Your task to perform on an android device: turn vacation reply on in the gmail app Image 0: 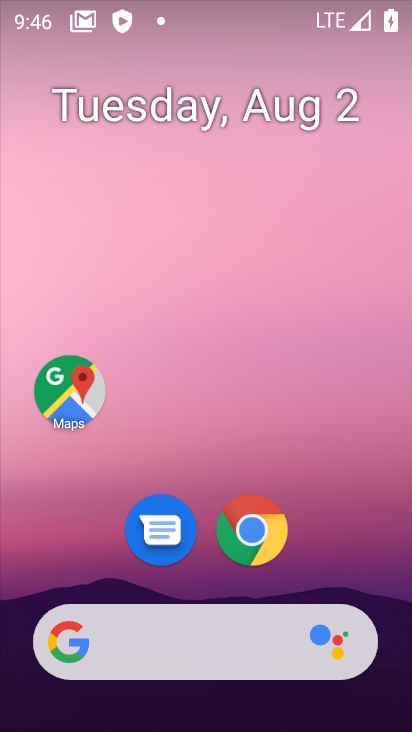
Step 0: drag from (319, 517) to (316, 34)
Your task to perform on an android device: turn vacation reply on in the gmail app Image 1: 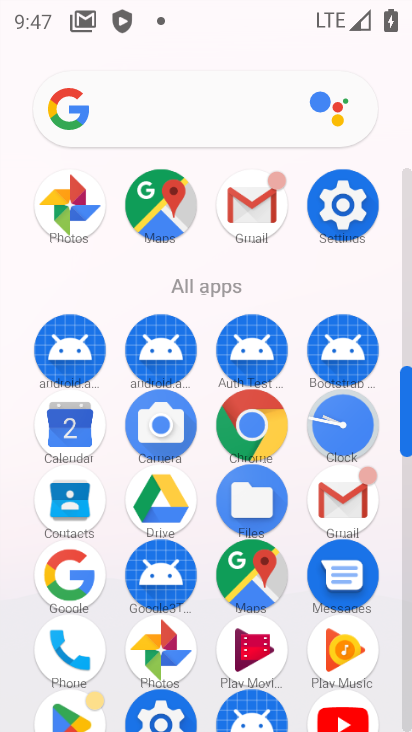
Step 1: click (342, 491)
Your task to perform on an android device: turn vacation reply on in the gmail app Image 2: 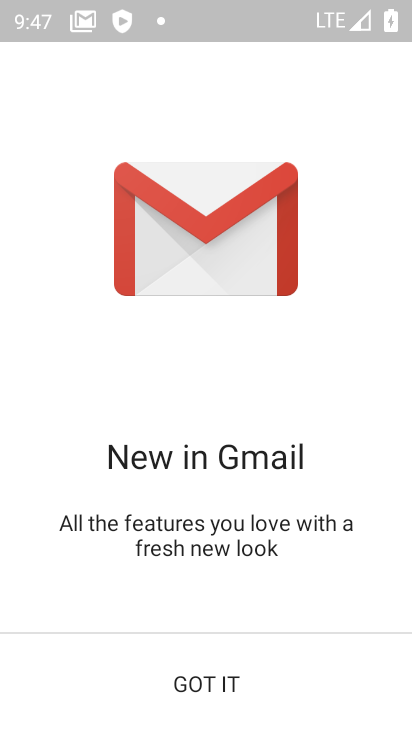
Step 2: click (224, 668)
Your task to perform on an android device: turn vacation reply on in the gmail app Image 3: 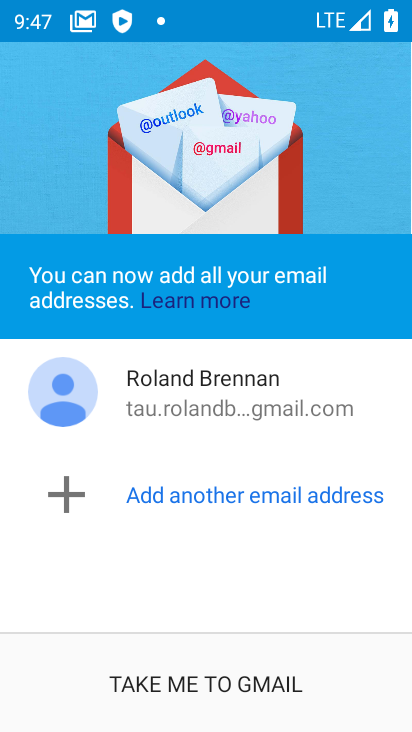
Step 3: click (226, 668)
Your task to perform on an android device: turn vacation reply on in the gmail app Image 4: 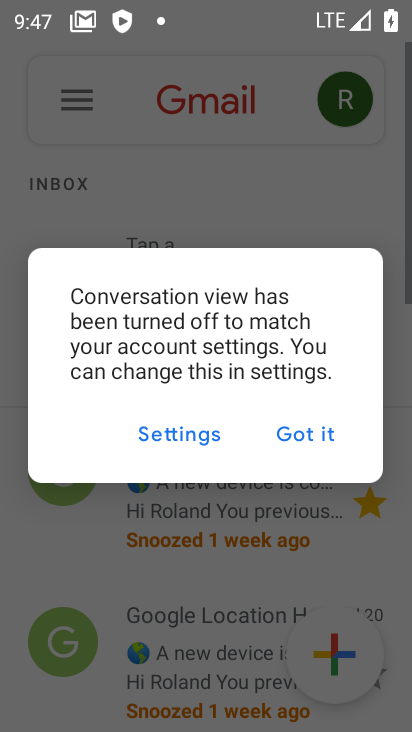
Step 4: click (313, 422)
Your task to perform on an android device: turn vacation reply on in the gmail app Image 5: 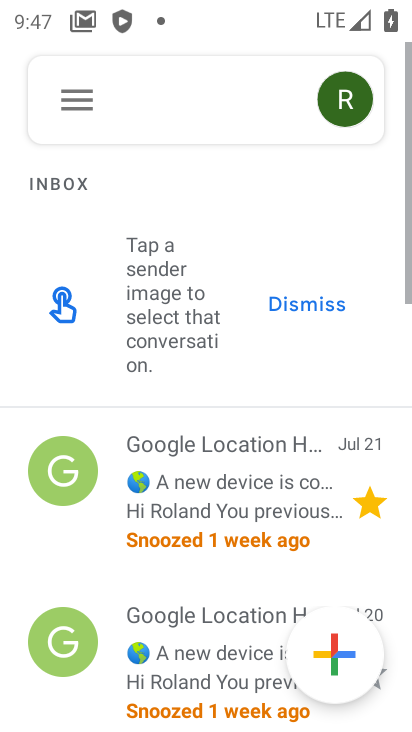
Step 5: click (74, 112)
Your task to perform on an android device: turn vacation reply on in the gmail app Image 6: 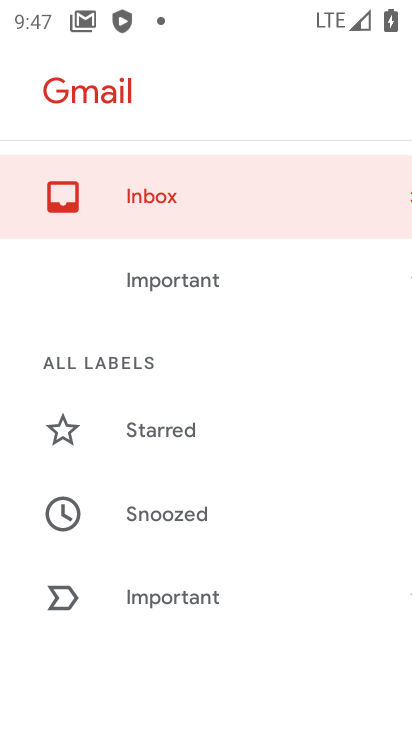
Step 6: drag from (240, 608) to (226, 88)
Your task to perform on an android device: turn vacation reply on in the gmail app Image 7: 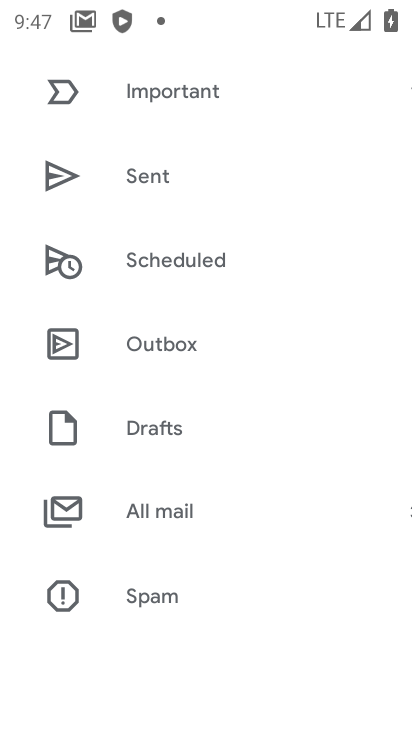
Step 7: drag from (252, 517) to (260, 172)
Your task to perform on an android device: turn vacation reply on in the gmail app Image 8: 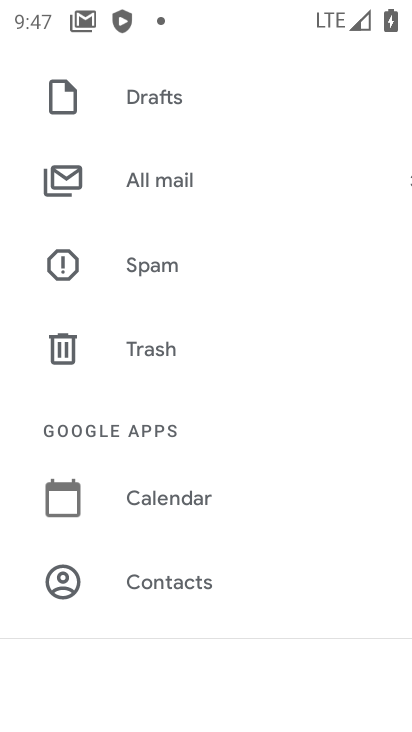
Step 8: drag from (213, 590) to (215, 111)
Your task to perform on an android device: turn vacation reply on in the gmail app Image 9: 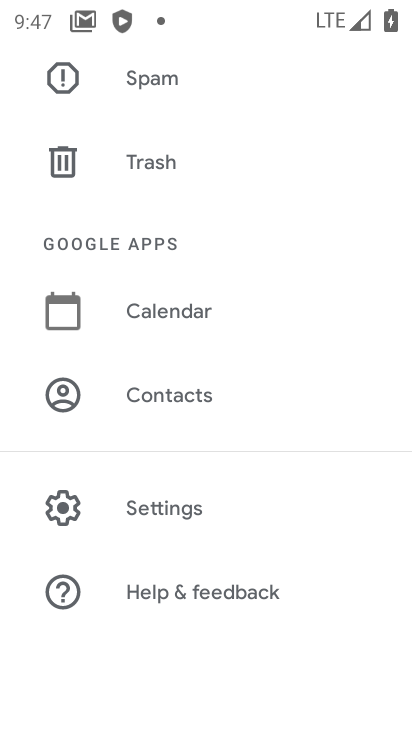
Step 9: click (183, 507)
Your task to perform on an android device: turn vacation reply on in the gmail app Image 10: 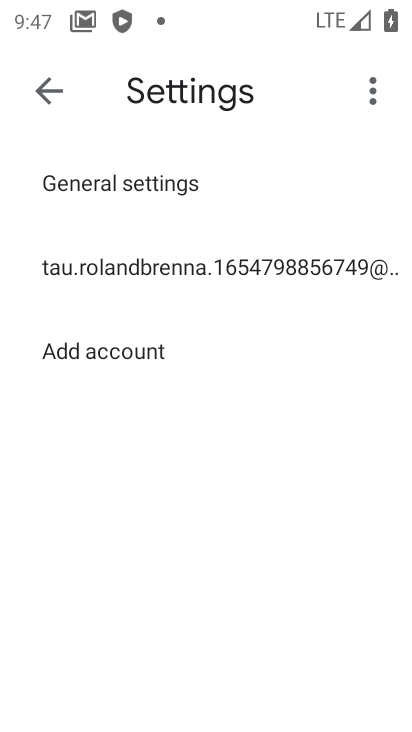
Step 10: click (198, 268)
Your task to perform on an android device: turn vacation reply on in the gmail app Image 11: 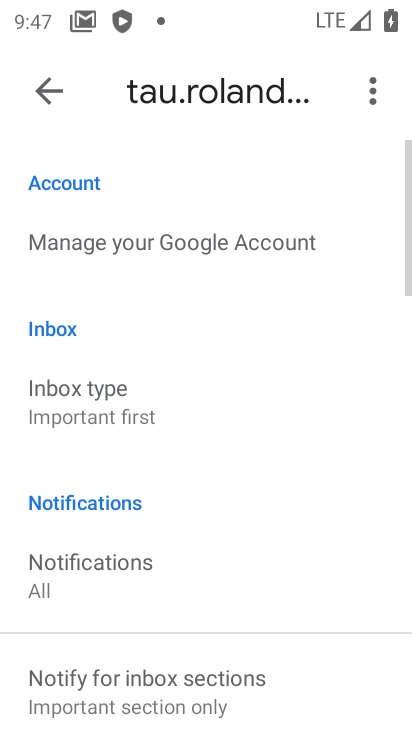
Step 11: drag from (260, 620) to (238, 185)
Your task to perform on an android device: turn vacation reply on in the gmail app Image 12: 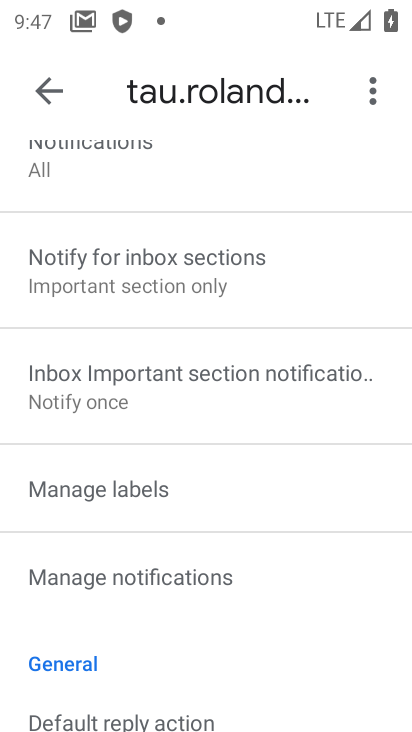
Step 12: drag from (268, 683) to (256, 254)
Your task to perform on an android device: turn vacation reply on in the gmail app Image 13: 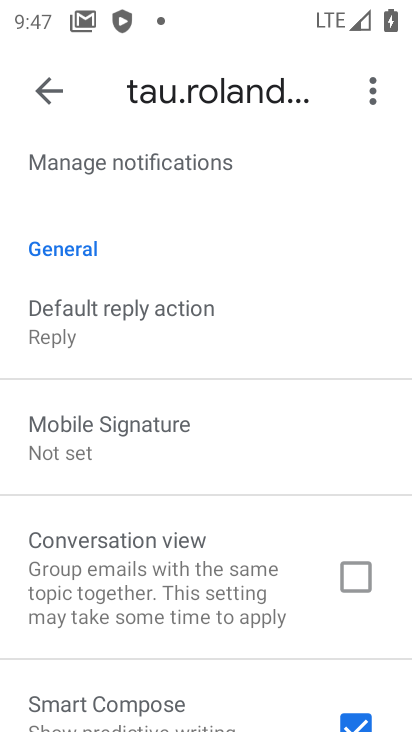
Step 13: drag from (248, 667) to (254, 259)
Your task to perform on an android device: turn vacation reply on in the gmail app Image 14: 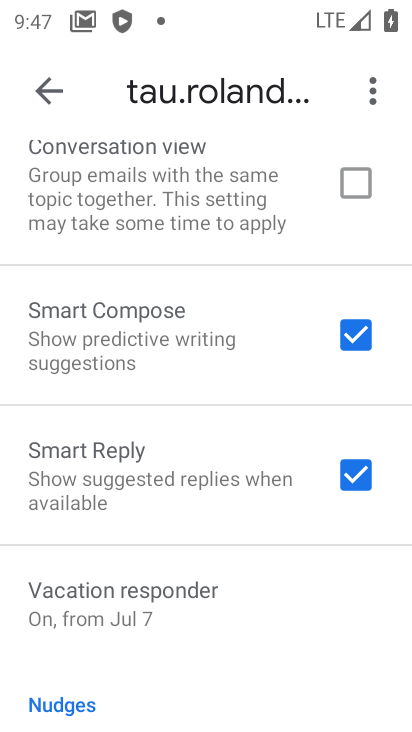
Step 14: click (115, 595)
Your task to perform on an android device: turn vacation reply on in the gmail app Image 15: 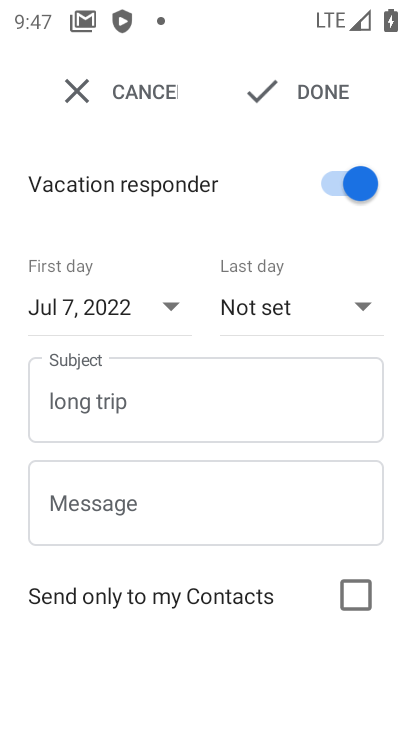
Step 15: click (299, 90)
Your task to perform on an android device: turn vacation reply on in the gmail app Image 16: 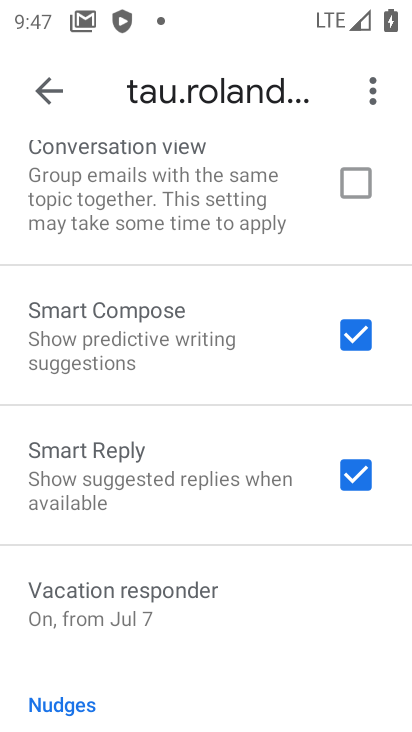
Step 16: task complete